Your task to perform on an android device: change keyboard looks Image 0: 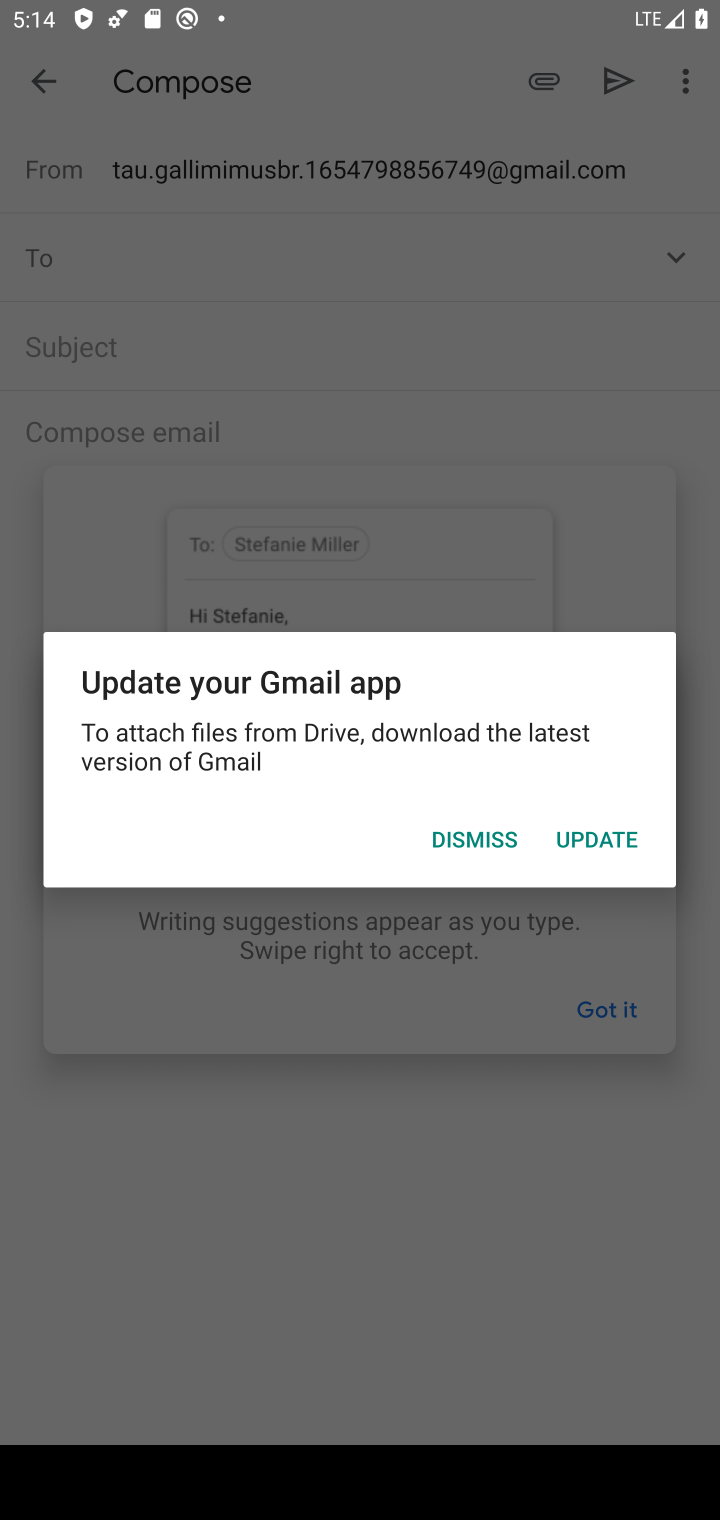
Step 0: press back button
Your task to perform on an android device: change keyboard looks Image 1: 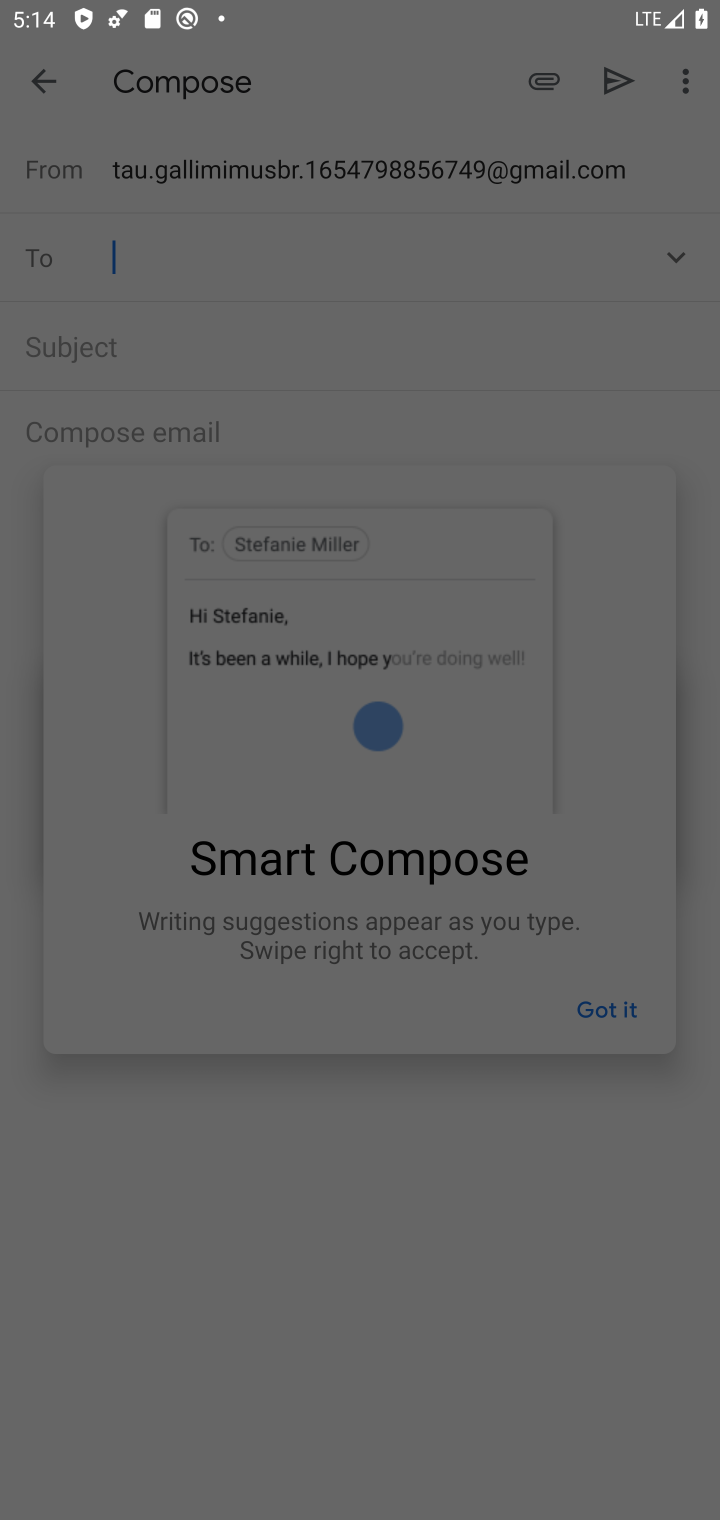
Step 1: press home button
Your task to perform on an android device: change keyboard looks Image 2: 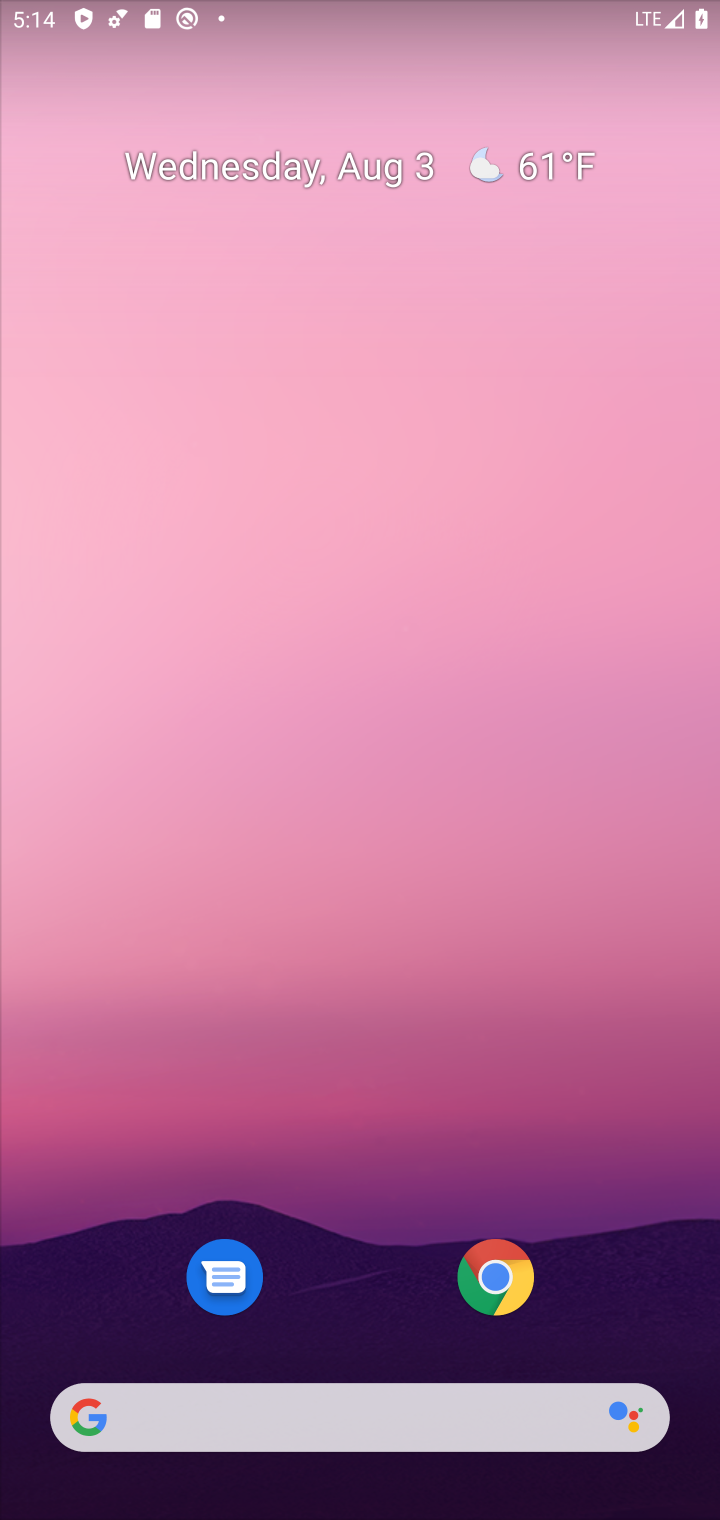
Step 2: drag from (341, 1183) to (293, 39)
Your task to perform on an android device: change keyboard looks Image 3: 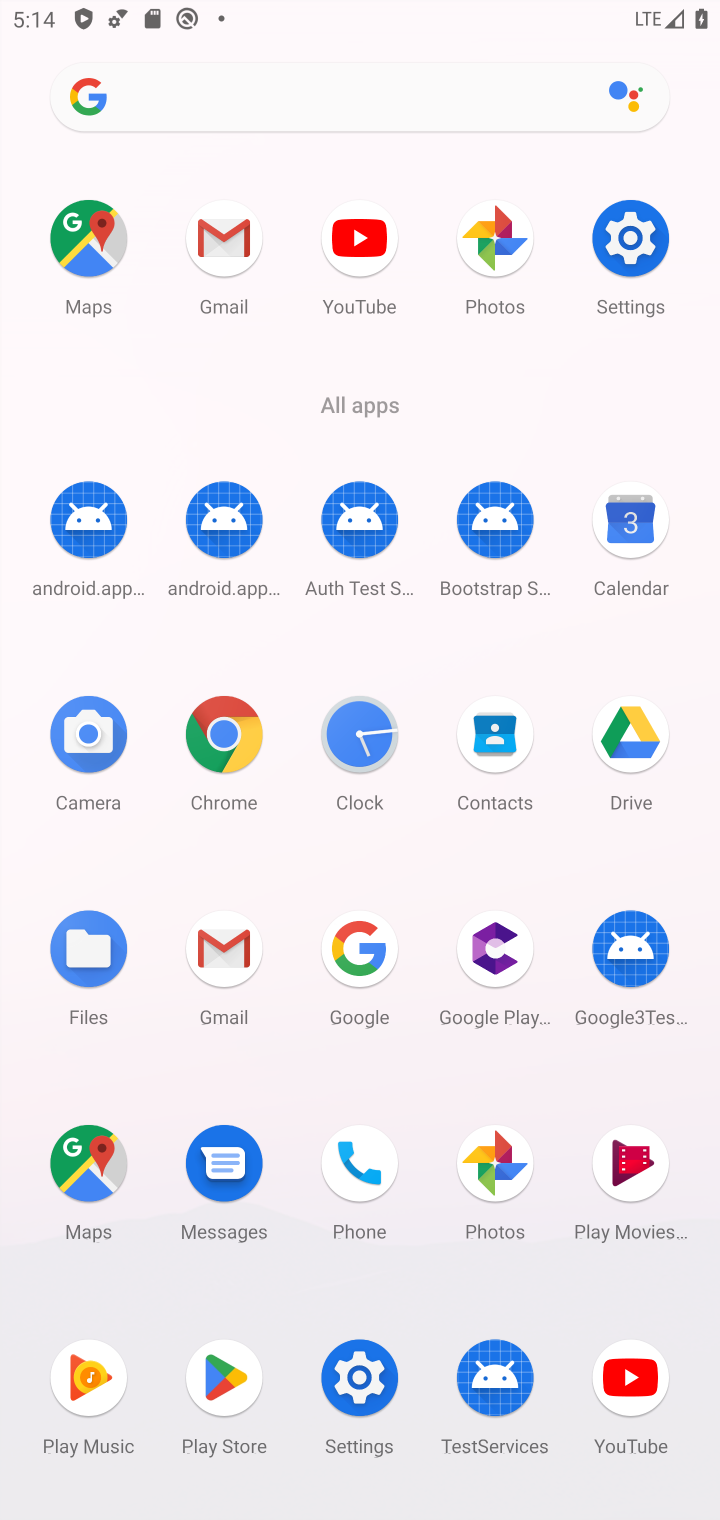
Step 3: click (639, 244)
Your task to perform on an android device: change keyboard looks Image 4: 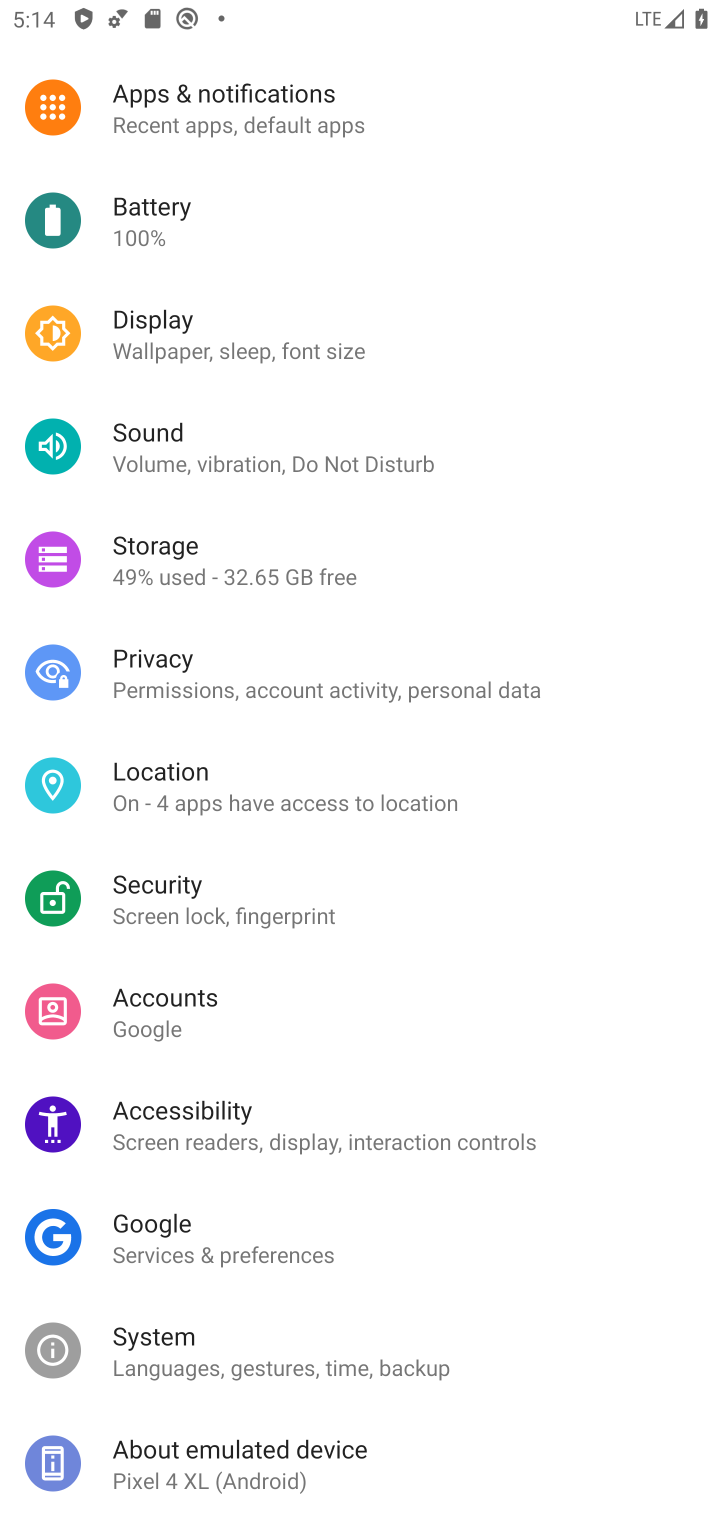
Step 4: drag from (293, 1307) to (496, 40)
Your task to perform on an android device: change keyboard looks Image 5: 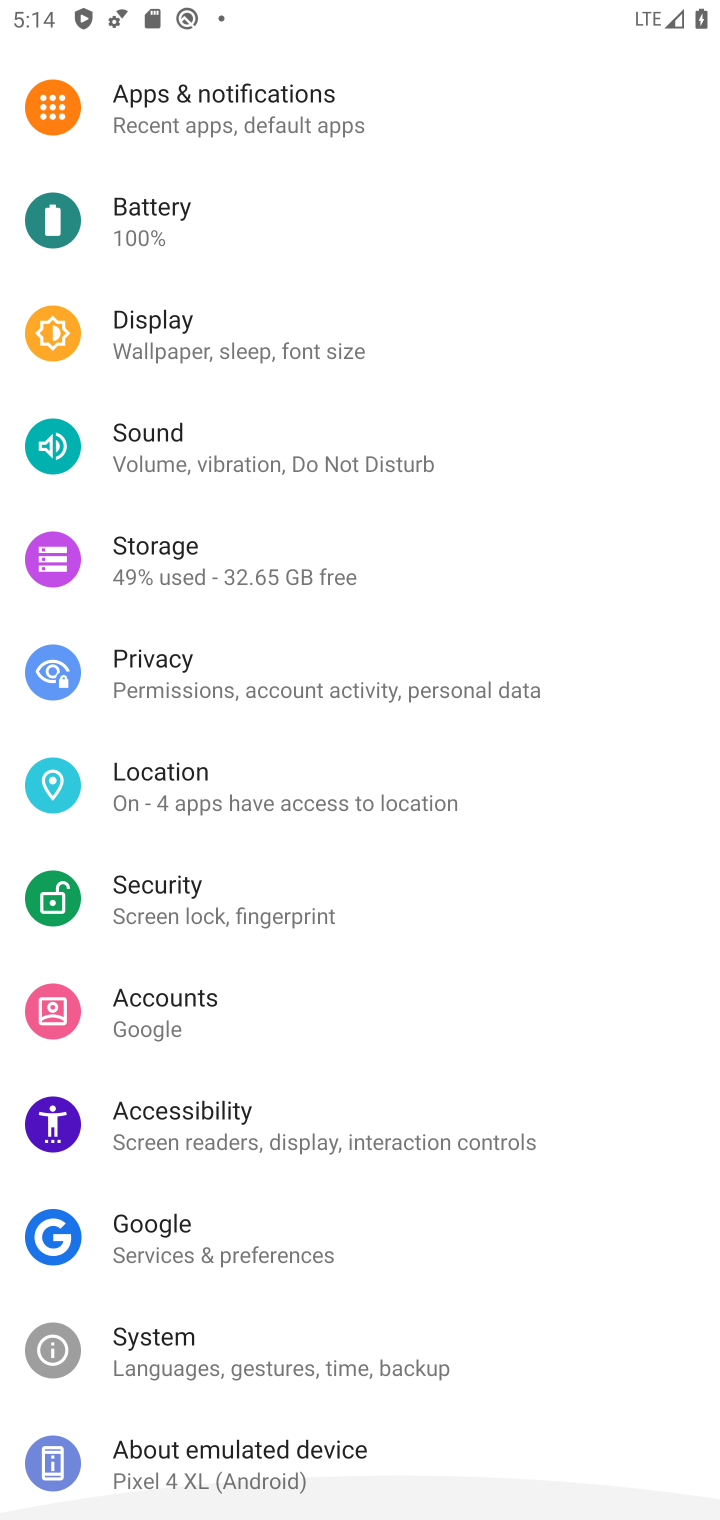
Step 5: drag from (355, 1346) to (711, 74)
Your task to perform on an android device: change keyboard looks Image 6: 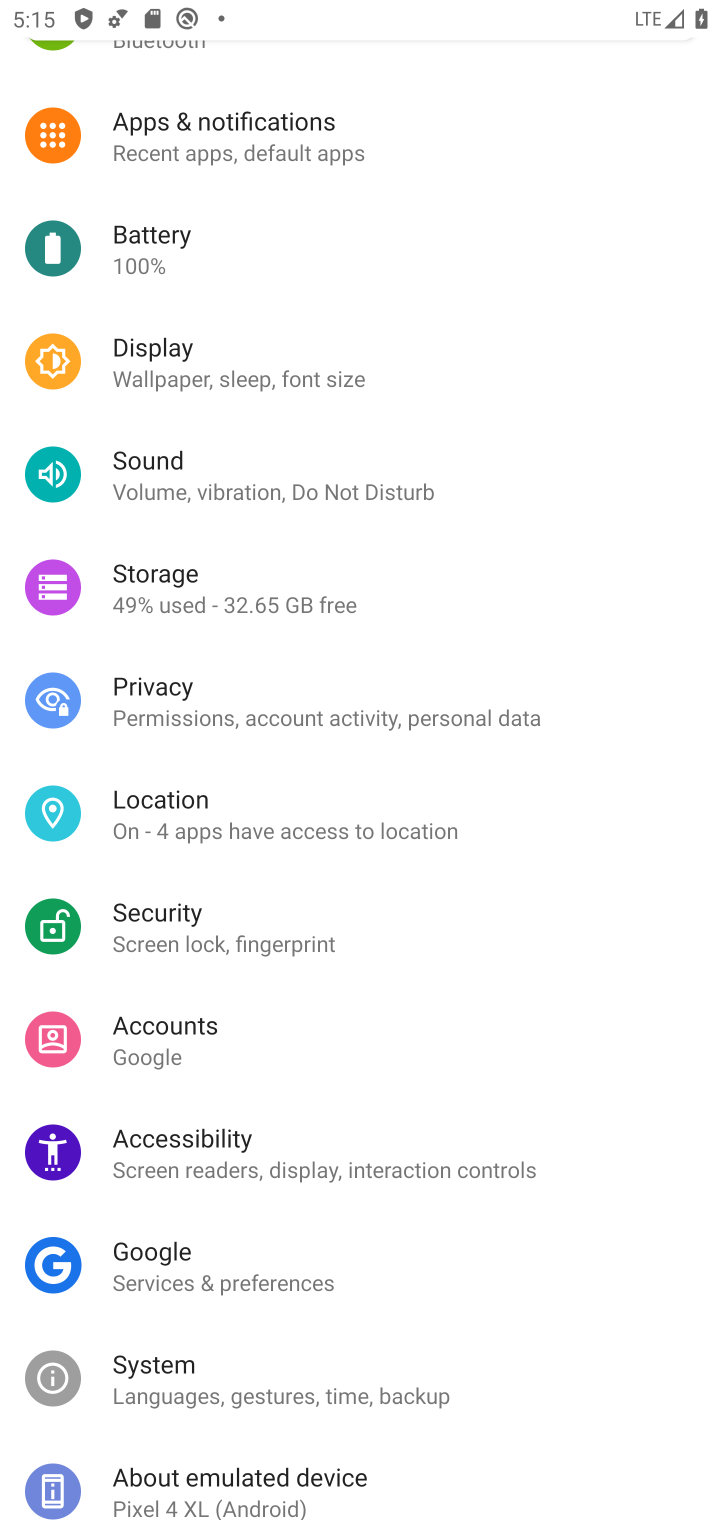
Step 6: drag from (347, 1343) to (641, 97)
Your task to perform on an android device: change keyboard looks Image 7: 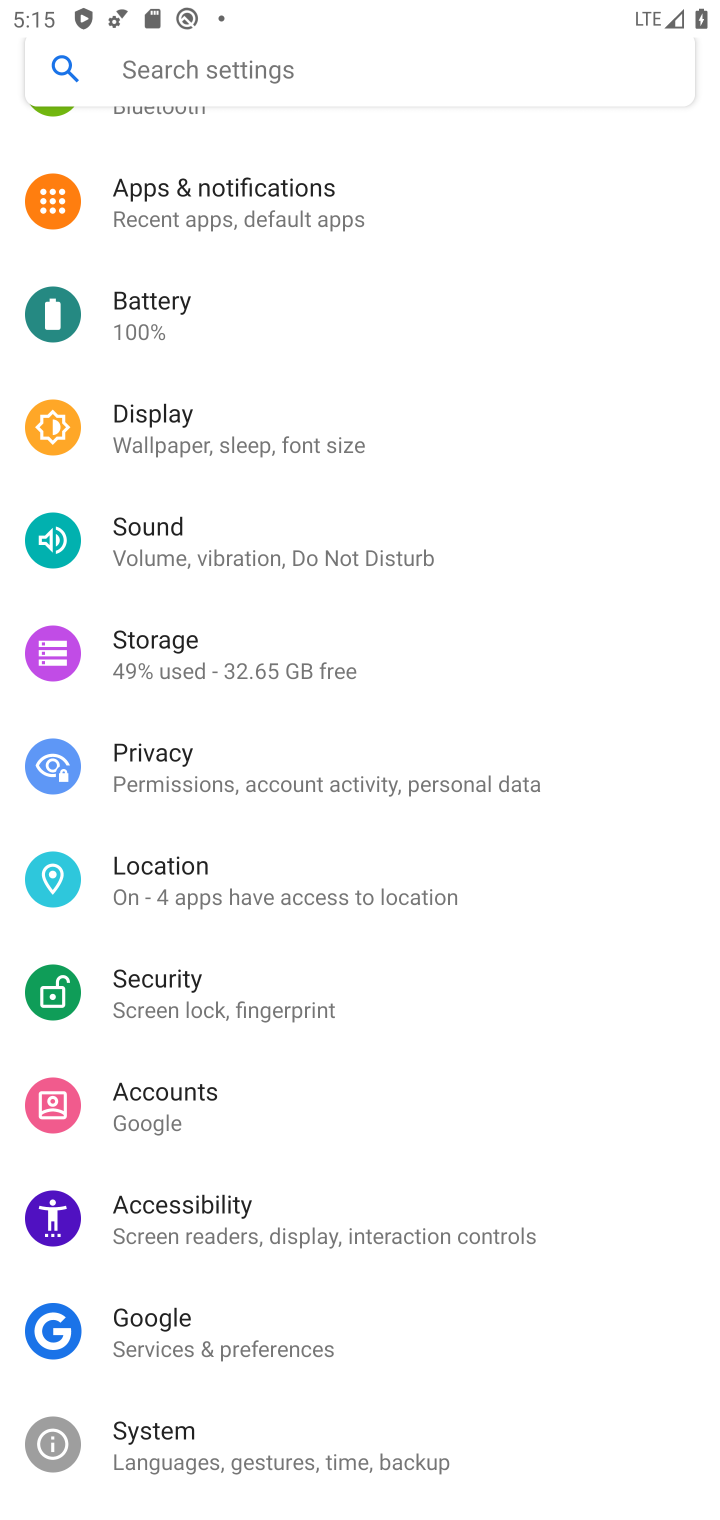
Step 7: drag from (169, 1432) to (323, 71)
Your task to perform on an android device: change keyboard looks Image 8: 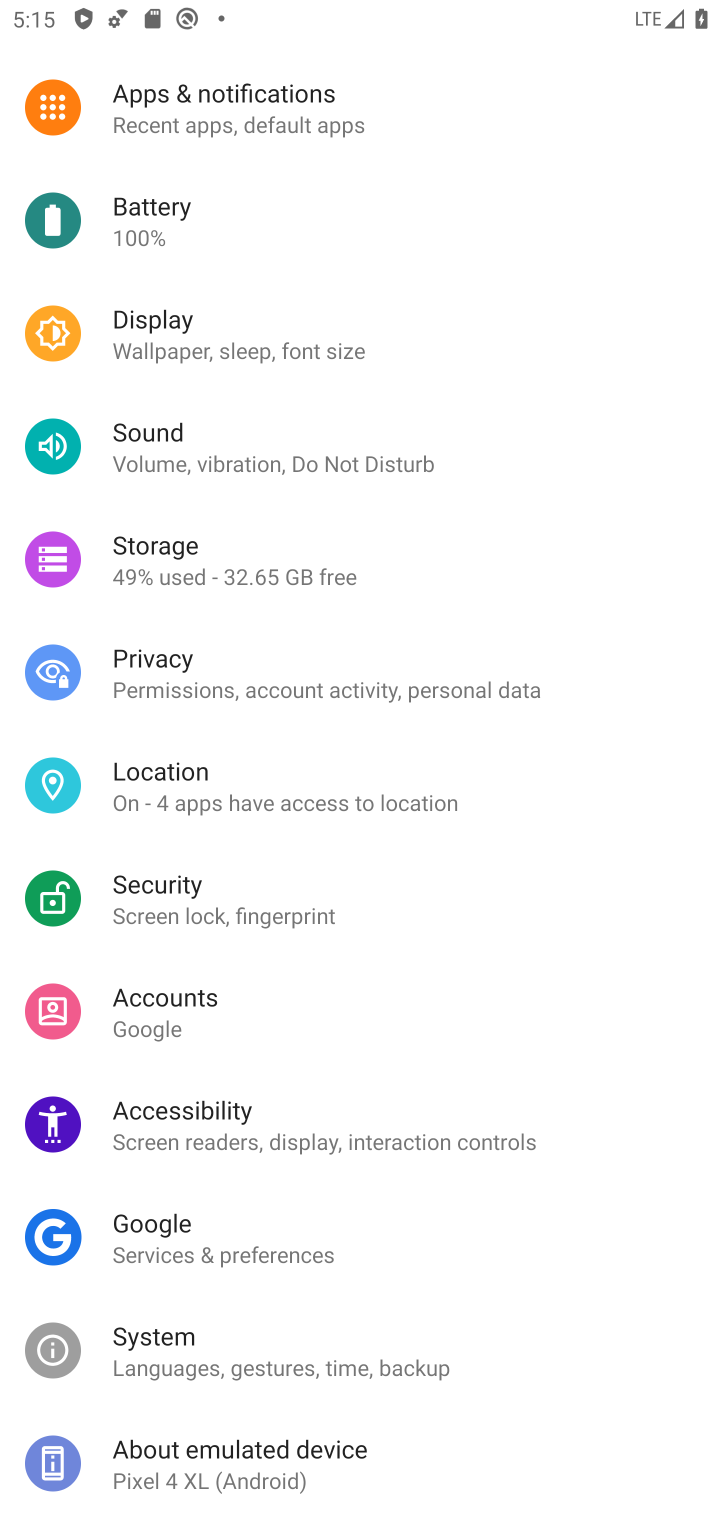
Step 8: click (218, 1450)
Your task to perform on an android device: change keyboard looks Image 9: 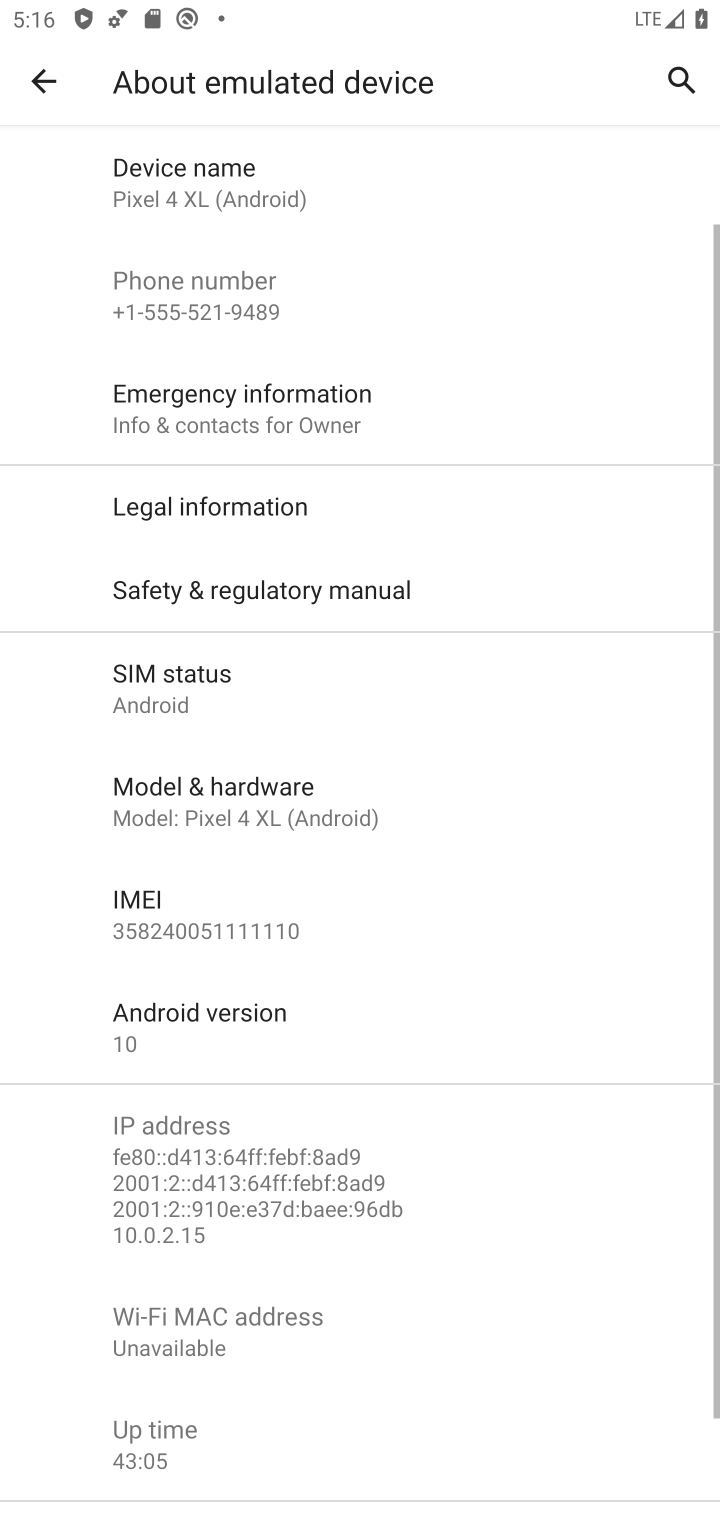
Step 9: click (27, 67)
Your task to perform on an android device: change keyboard looks Image 10: 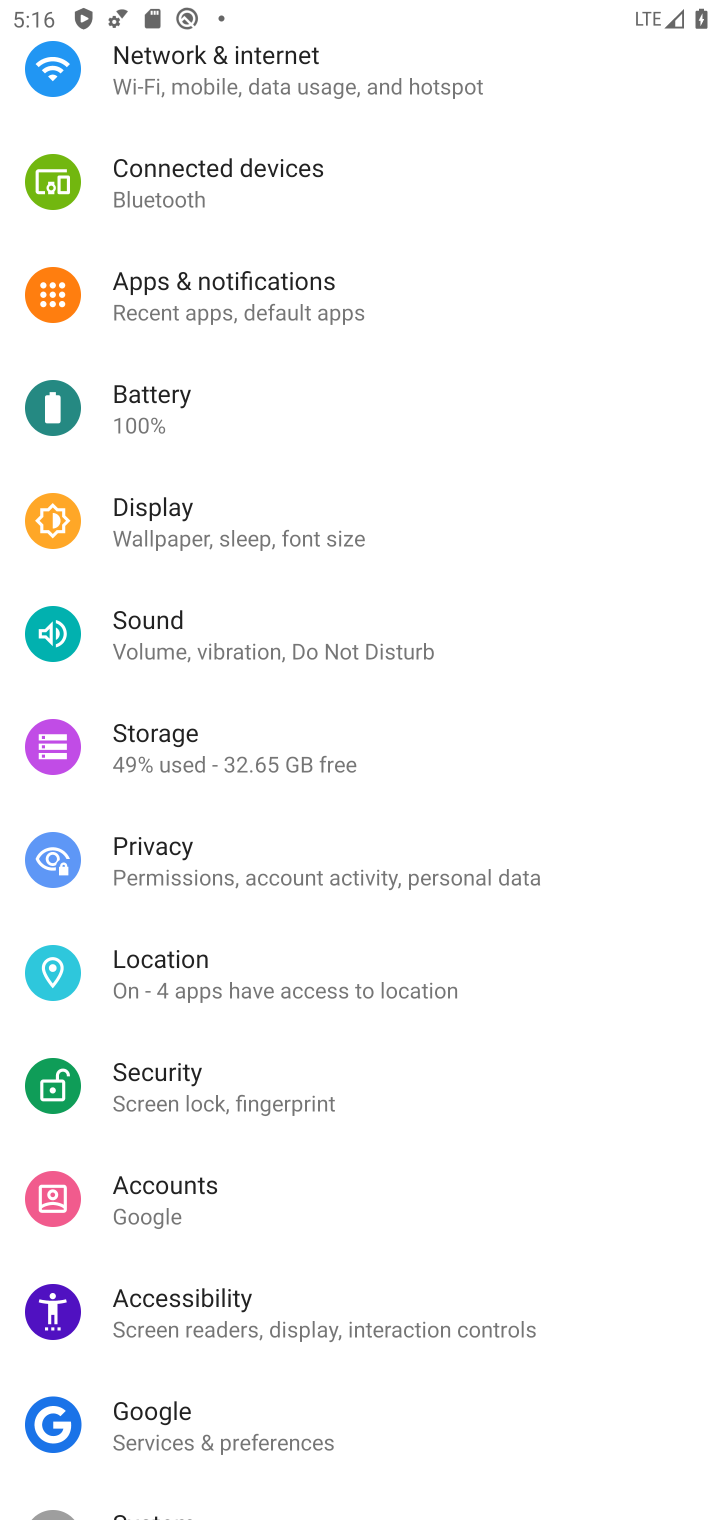
Step 10: drag from (346, 1357) to (561, 48)
Your task to perform on an android device: change keyboard looks Image 11: 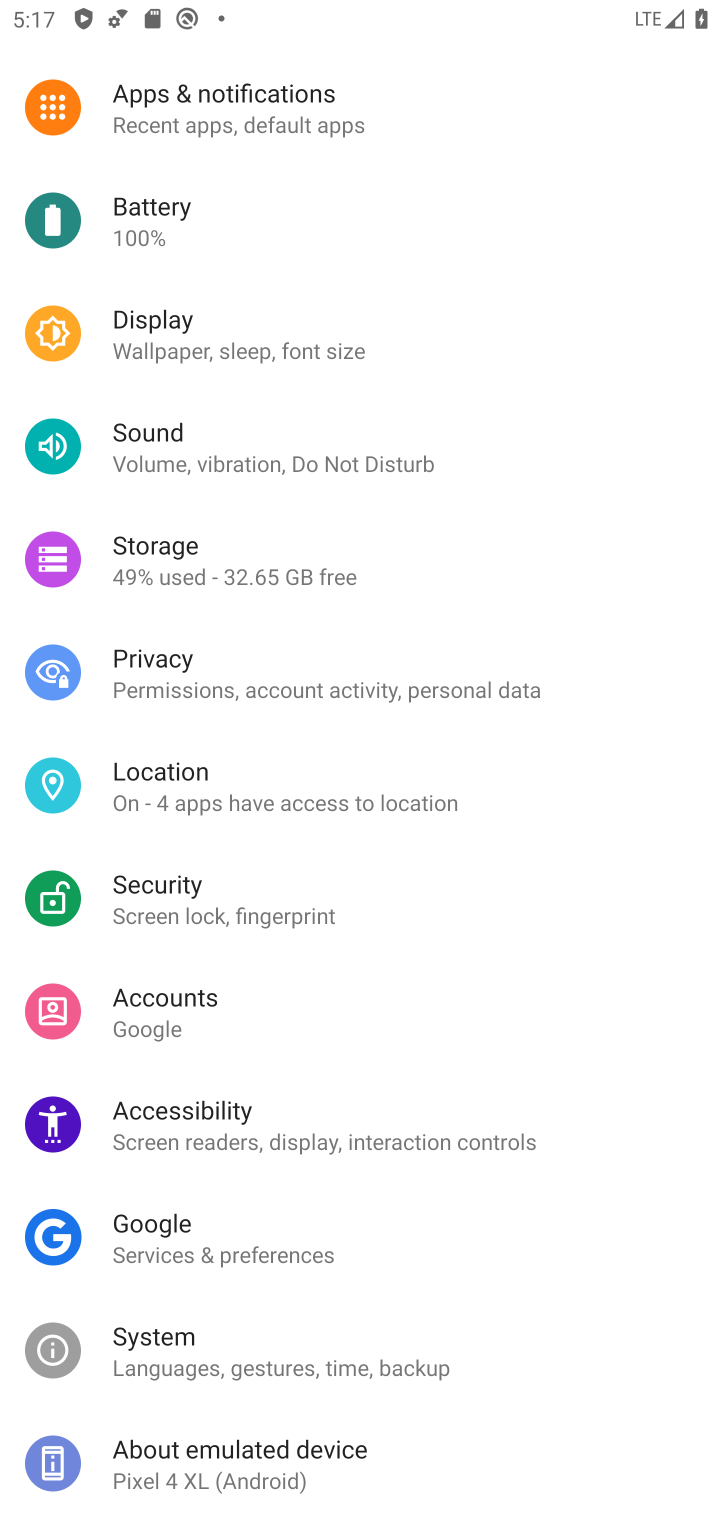
Step 11: click (210, 1326)
Your task to perform on an android device: change keyboard looks Image 12: 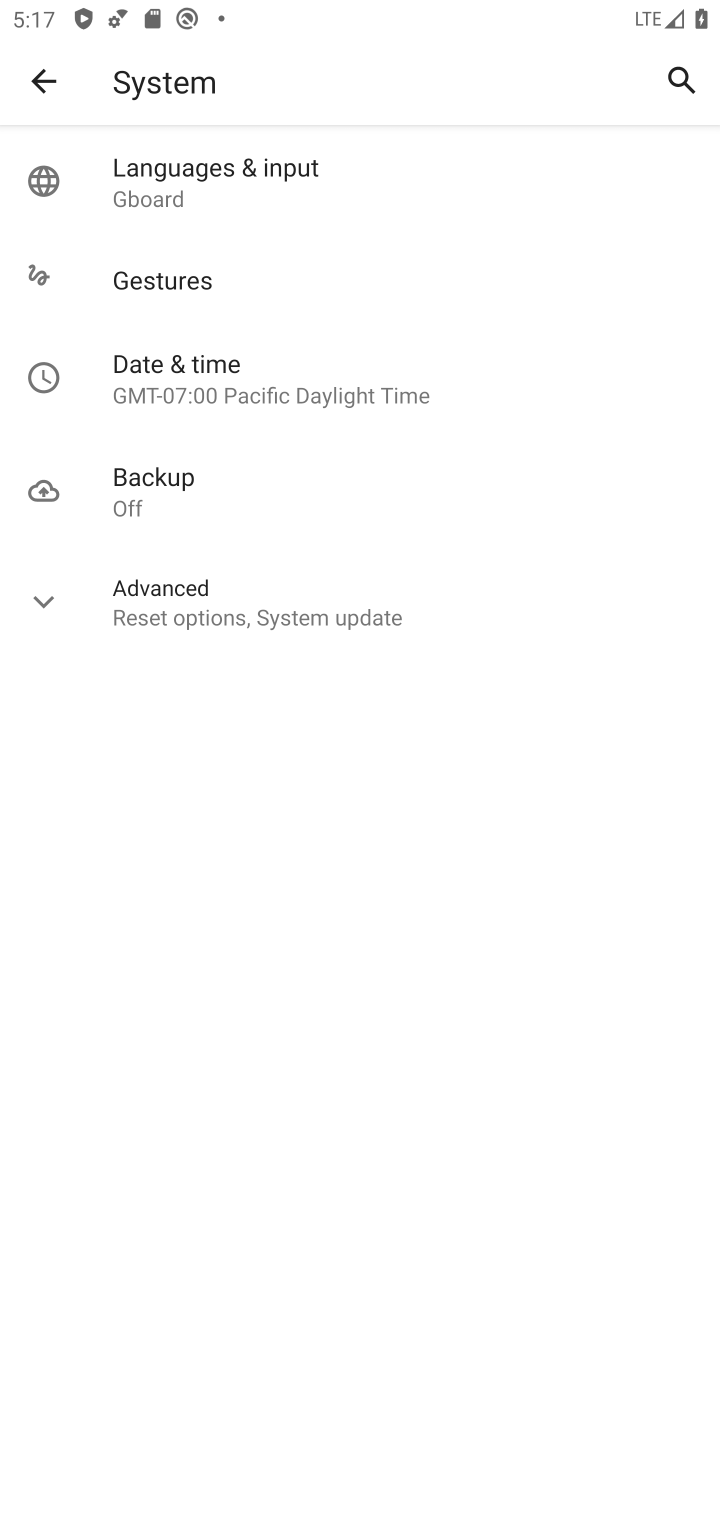
Step 12: click (260, 183)
Your task to perform on an android device: change keyboard looks Image 13: 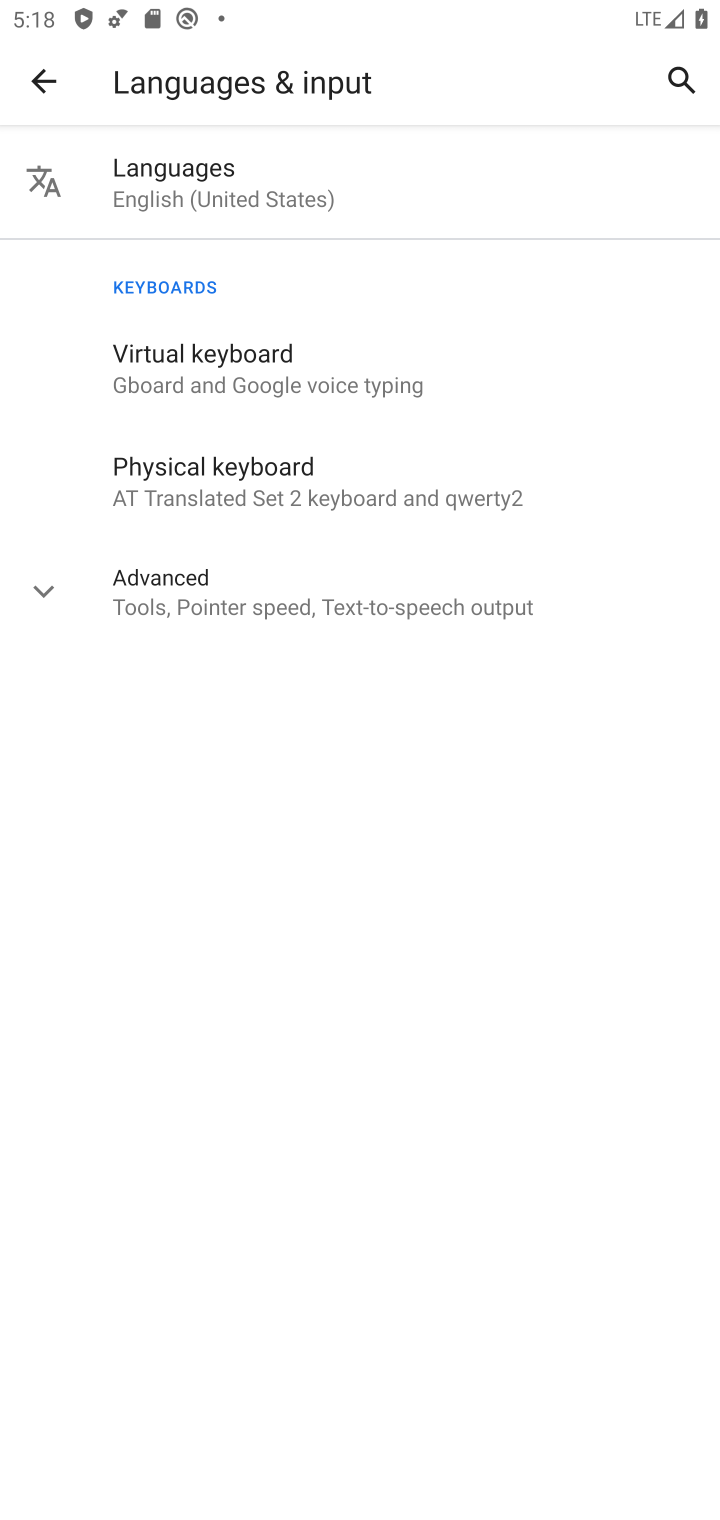
Step 13: click (284, 357)
Your task to perform on an android device: change keyboard looks Image 14: 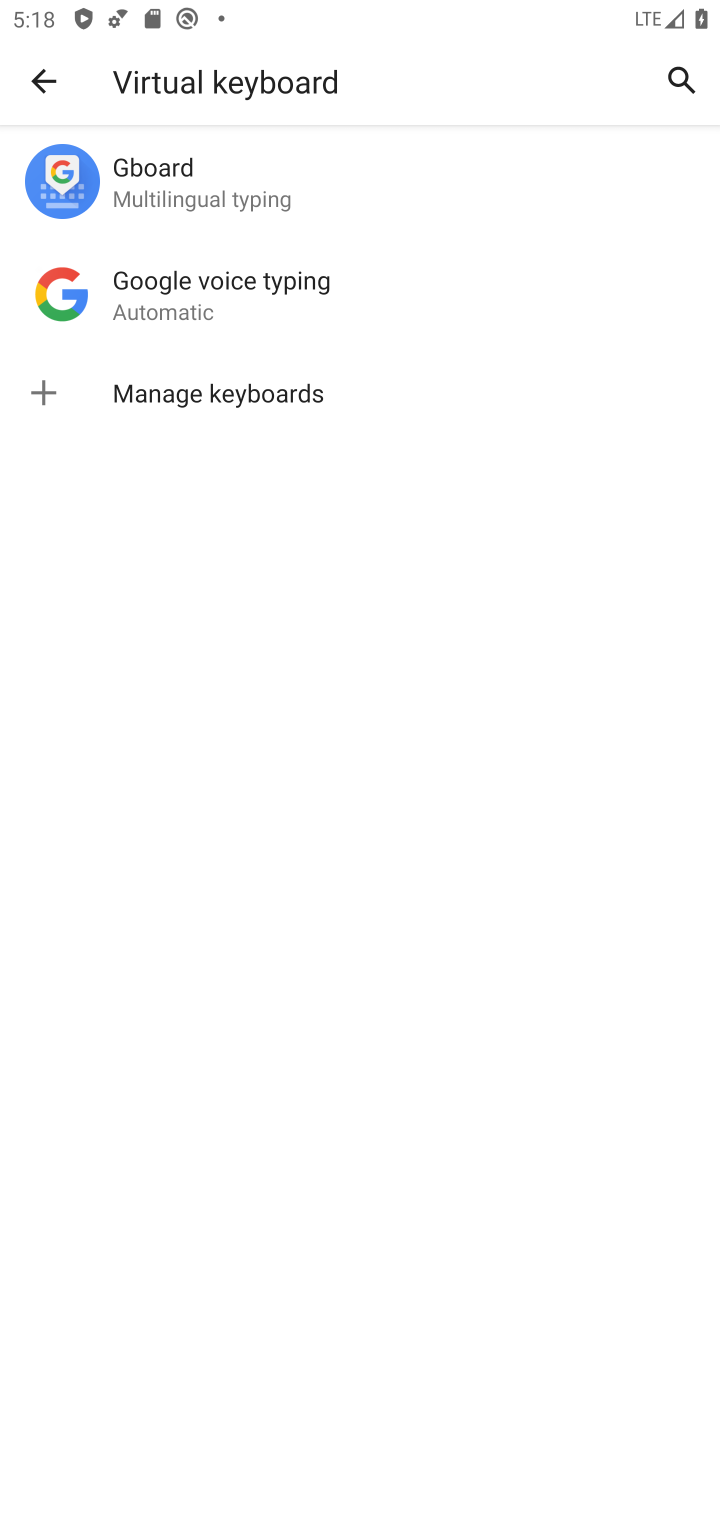
Step 14: click (202, 190)
Your task to perform on an android device: change keyboard looks Image 15: 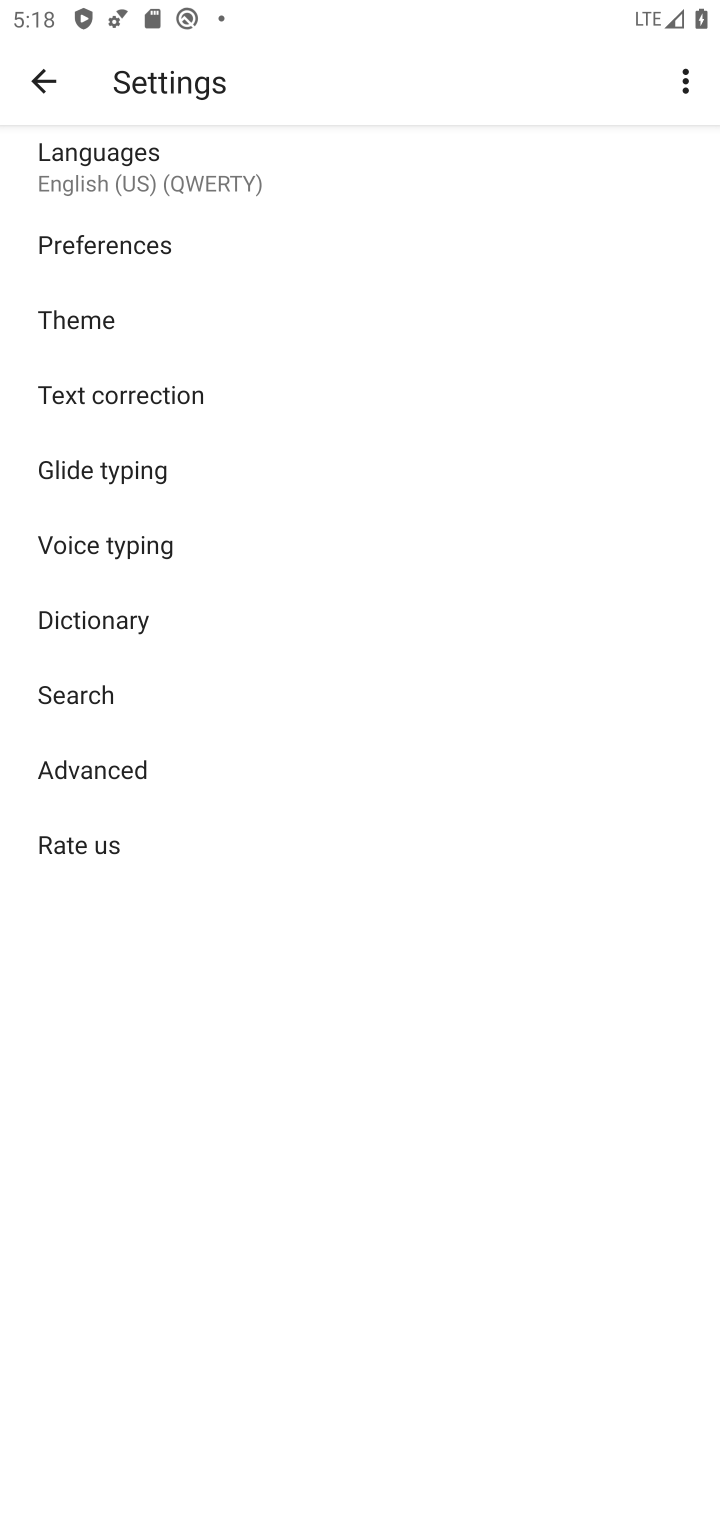
Step 15: click (111, 322)
Your task to perform on an android device: change keyboard looks Image 16: 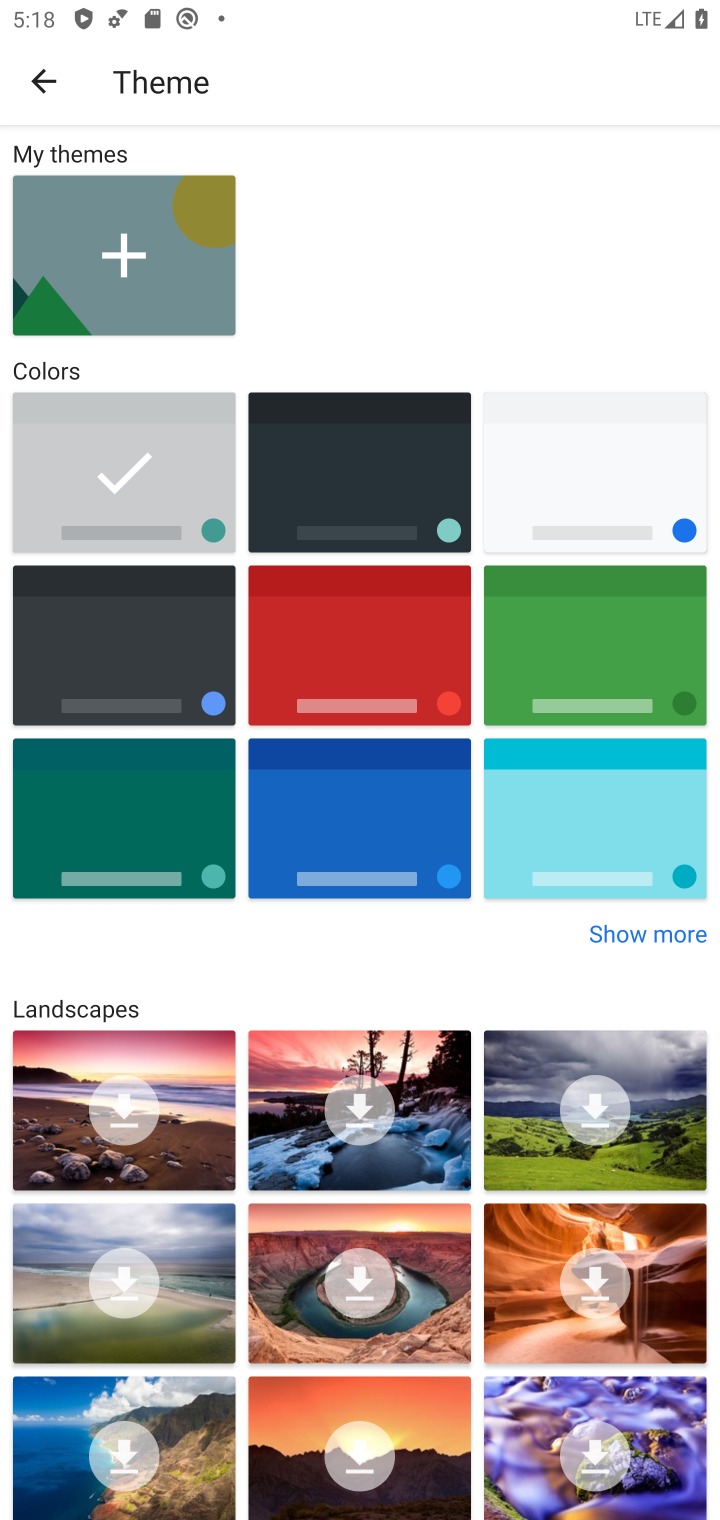
Step 16: click (554, 660)
Your task to perform on an android device: change keyboard looks Image 17: 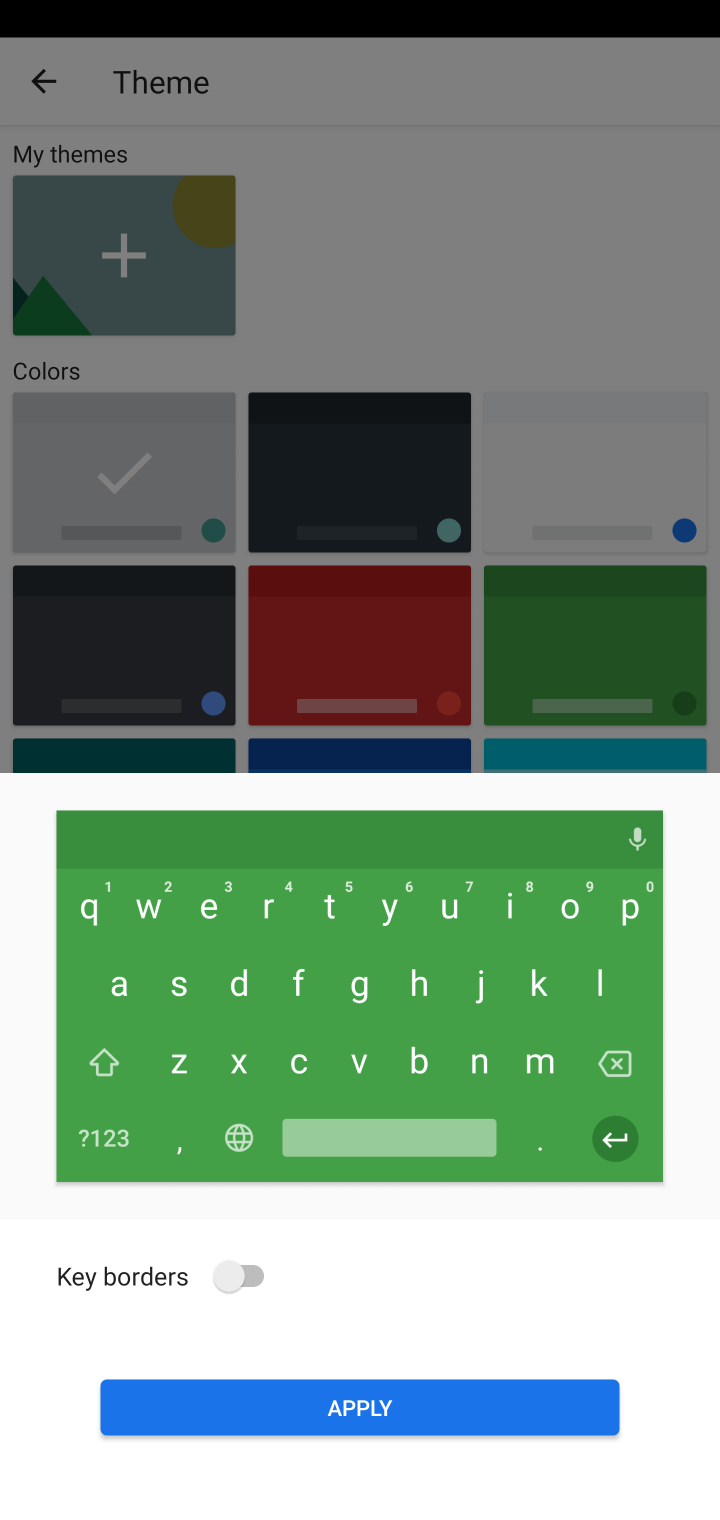
Step 17: click (331, 1401)
Your task to perform on an android device: change keyboard looks Image 18: 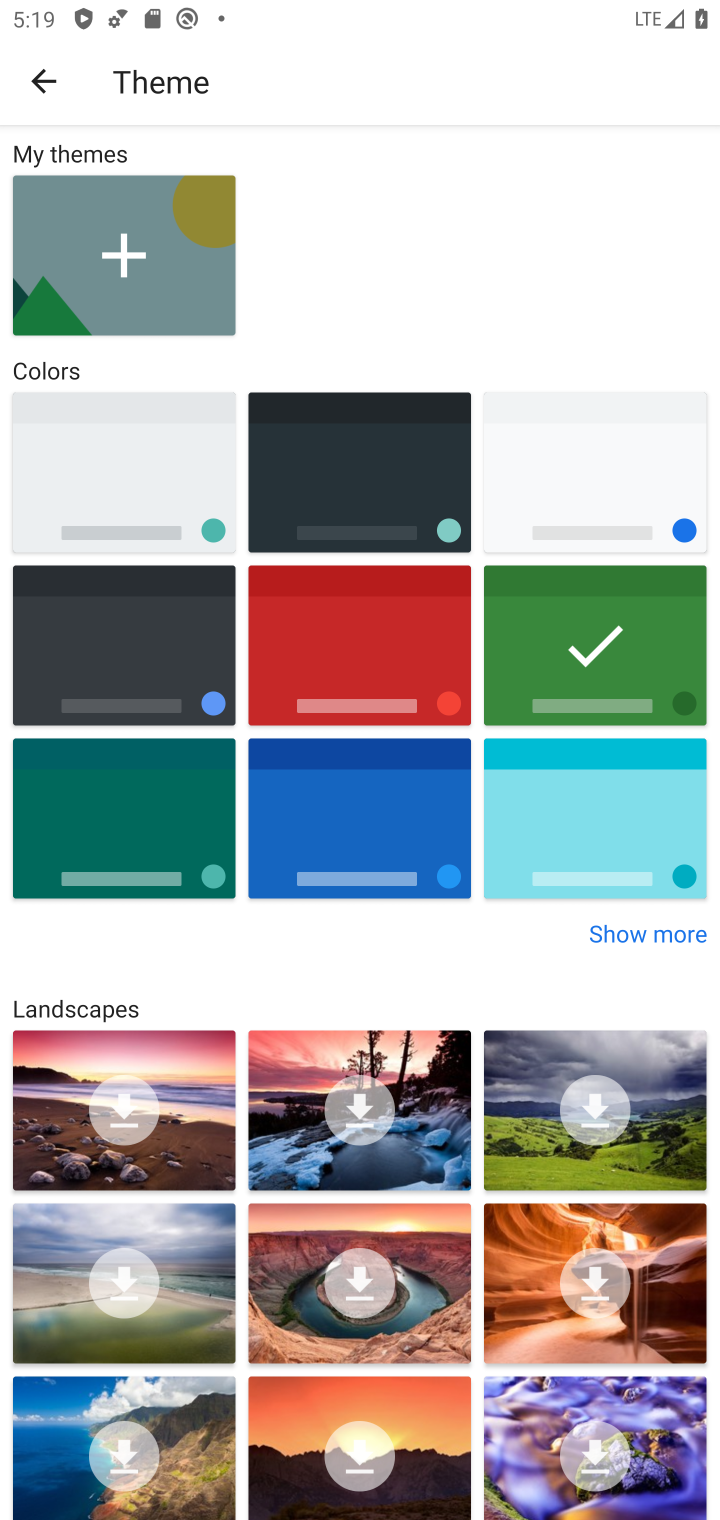
Step 18: click (558, 640)
Your task to perform on an android device: change keyboard looks Image 19: 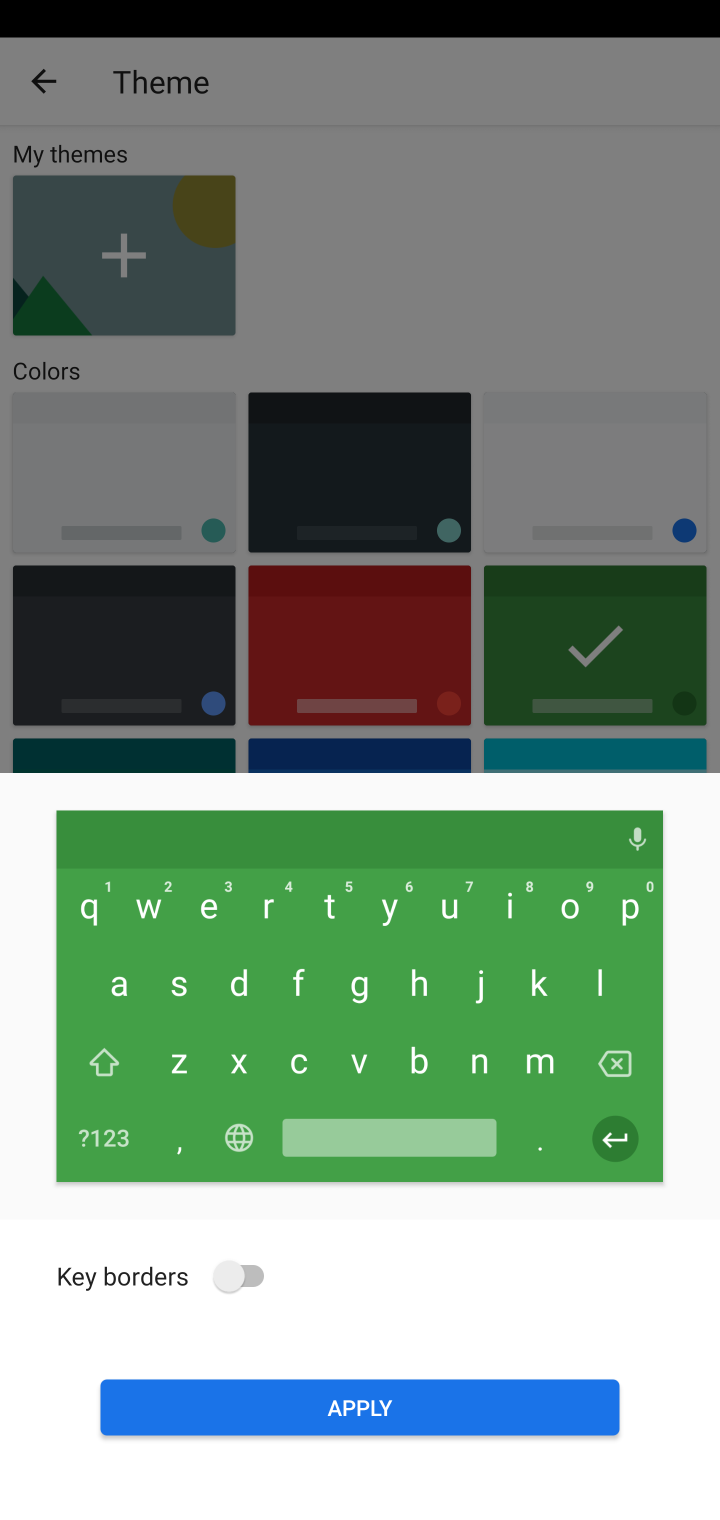
Step 19: click (315, 1395)
Your task to perform on an android device: change keyboard looks Image 20: 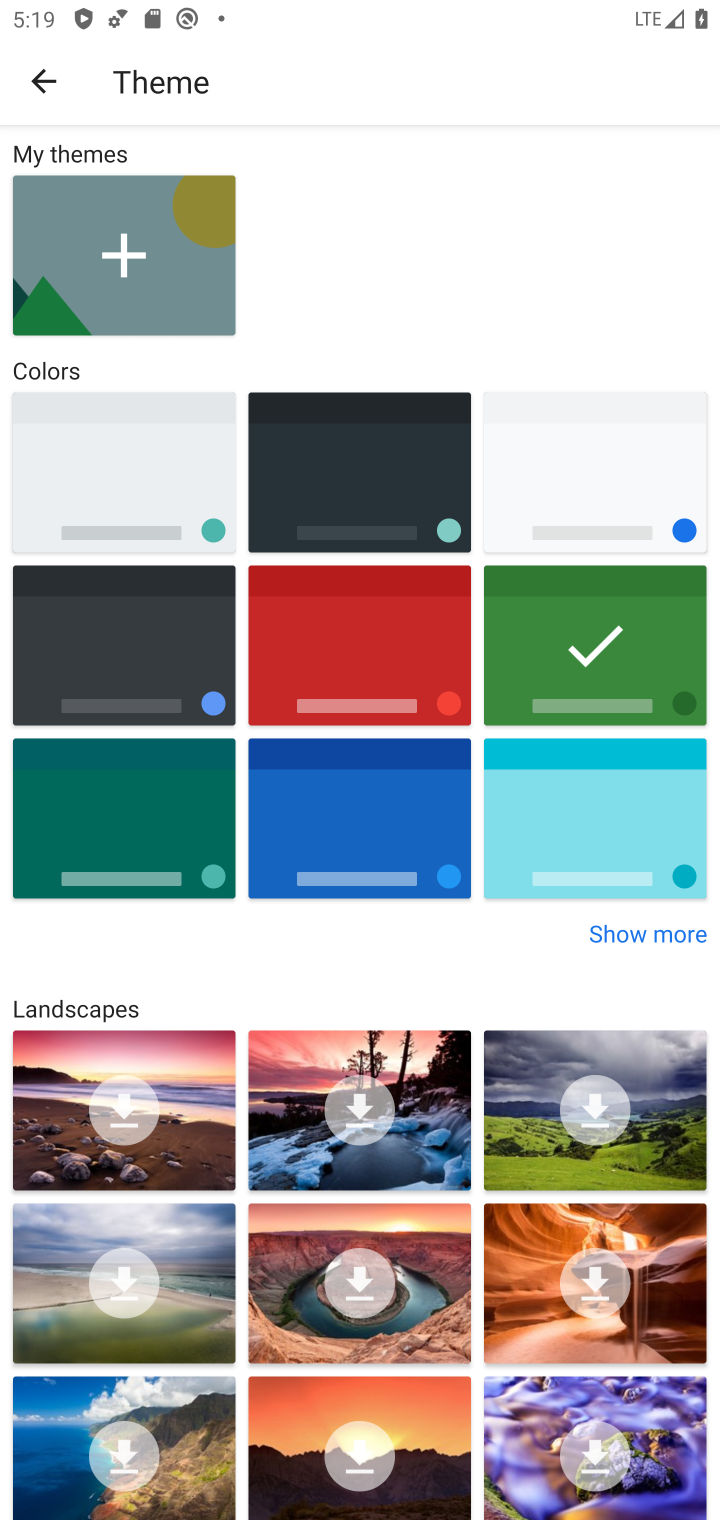
Step 20: task complete